Your task to perform on an android device: set the timer Image 0: 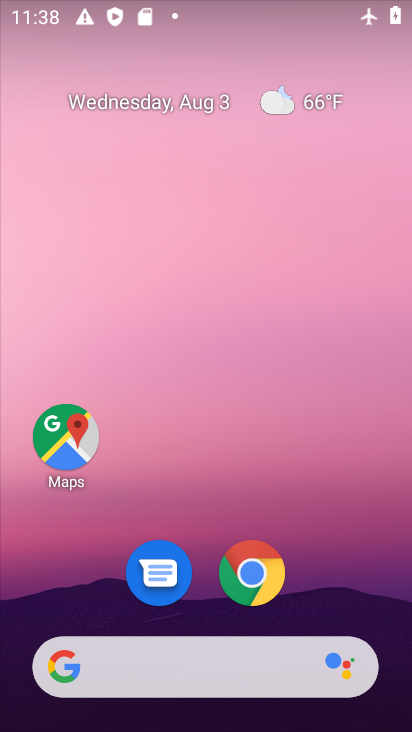
Step 0: drag from (361, 536) to (281, 39)
Your task to perform on an android device: set the timer Image 1: 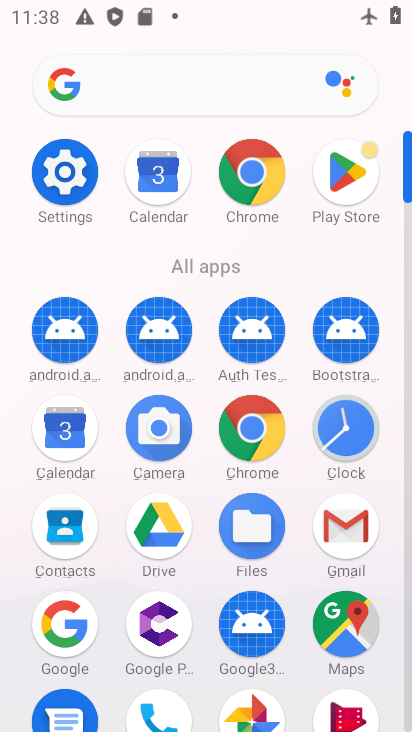
Step 1: click (359, 437)
Your task to perform on an android device: set the timer Image 2: 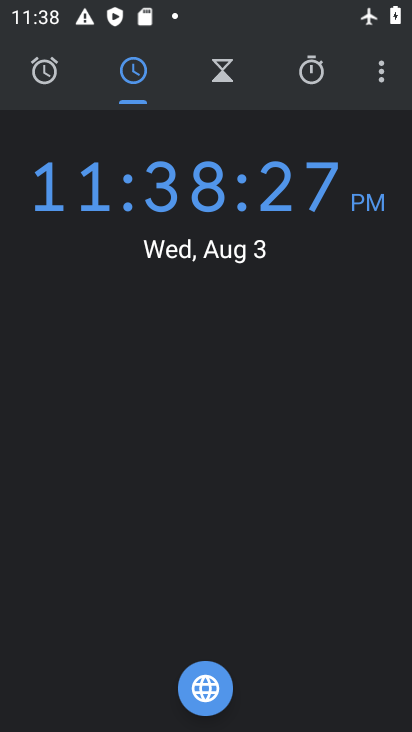
Step 2: click (306, 79)
Your task to perform on an android device: set the timer Image 3: 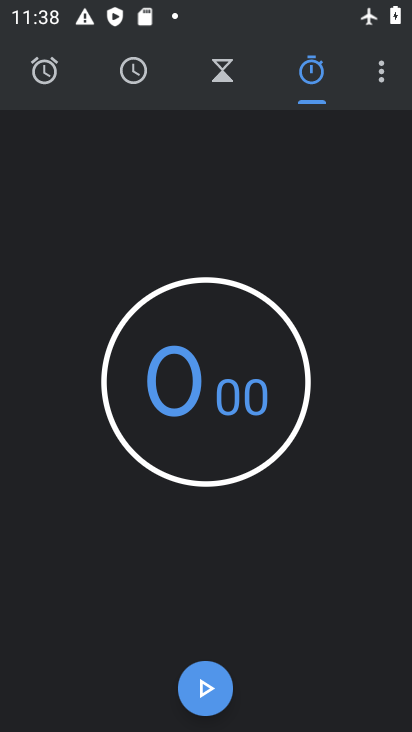
Step 3: click (200, 83)
Your task to perform on an android device: set the timer Image 4: 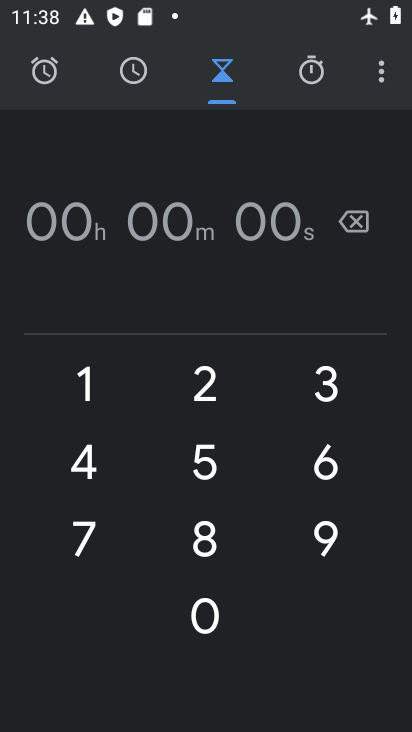
Step 4: click (234, 476)
Your task to perform on an android device: set the timer Image 5: 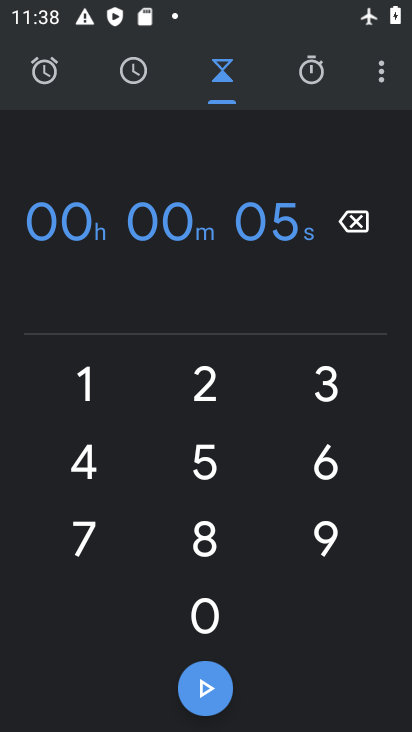
Step 5: task complete